Your task to perform on an android device: Open Android settings Image 0: 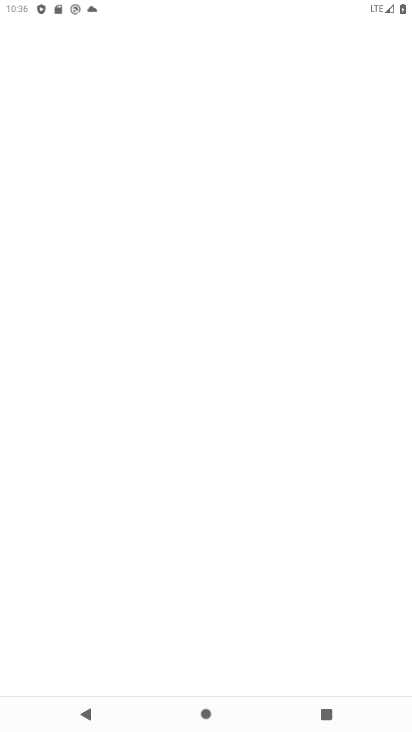
Step 0: drag from (194, 518) to (155, 257)
Your task to perform on an android device: Open Android settings Image 1: 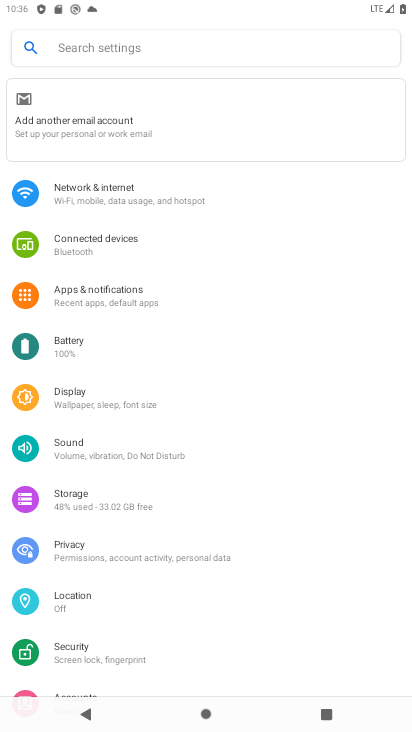
Step 1: press home button
Your task to perform on an android device: Open Android settings Image 2: 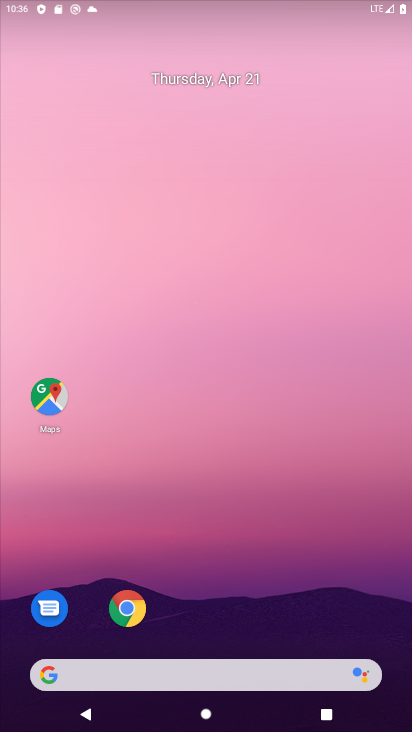
Step 2: drag from (216, 606) to (213, 144)
Your task to perform on an android device: Open Android settings Image 3: 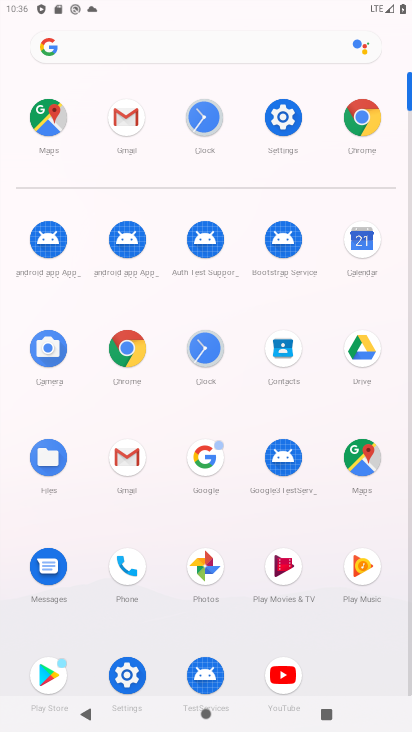
Step 3: click (285, 120)
Your task to perform on an android device: Open Android settings Image 4: 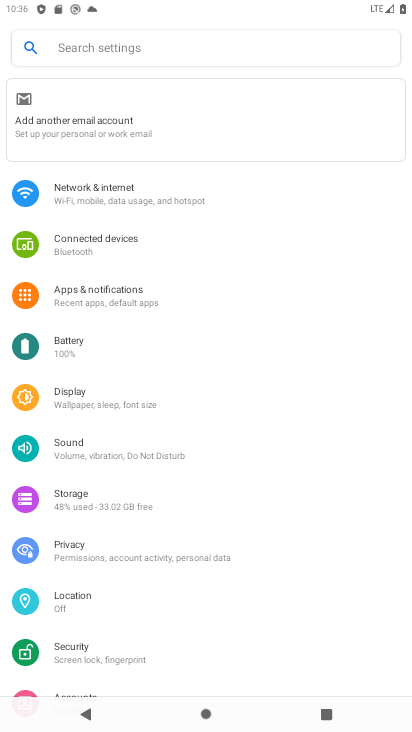
Step 4: drag from (279, 684) to (266, 281)
Your task to perform on an android device: Open Android settings Image 5: 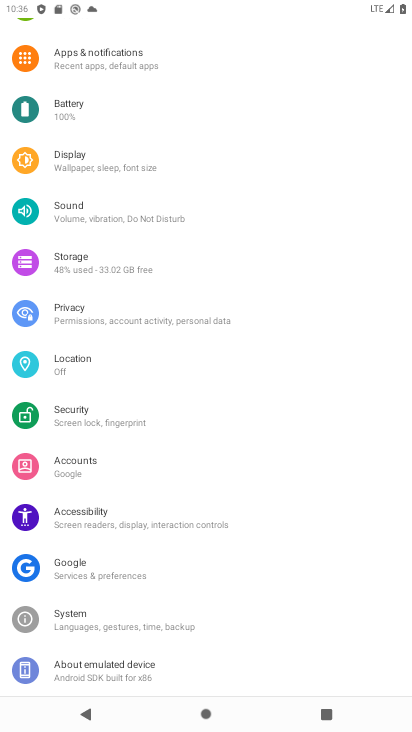
Step 5: click (121, 664)
Your task to perform on an android device: Open Android settings Image 6: 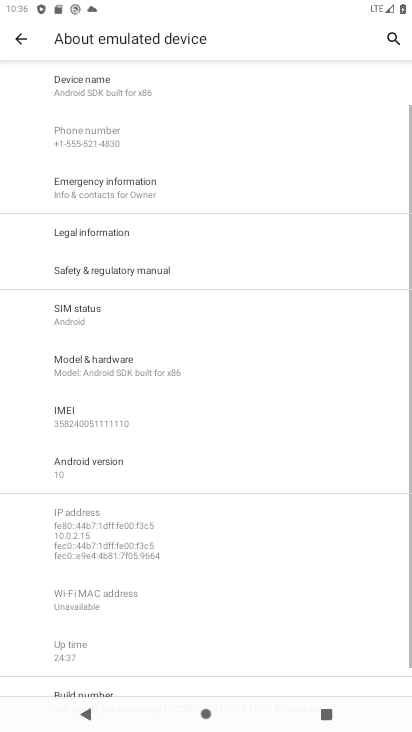
Step 6: drag from (105, 593) to (108, 255)
Your task to perform on an android device: Open Android settings Image 7: 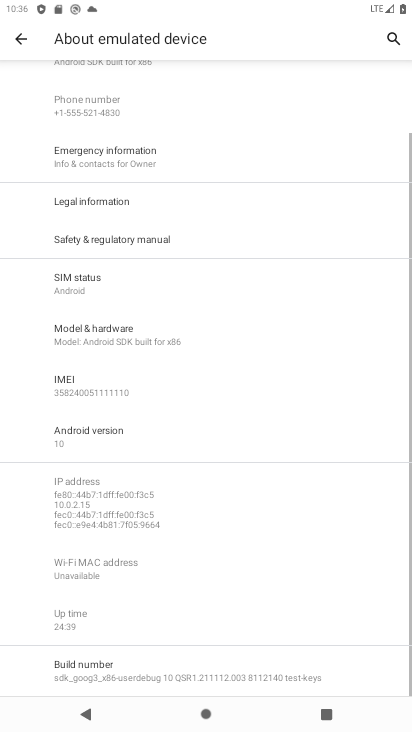
Step 7: click (78, 433)
Your task to perform on an android device: Open Android settings Image 8: 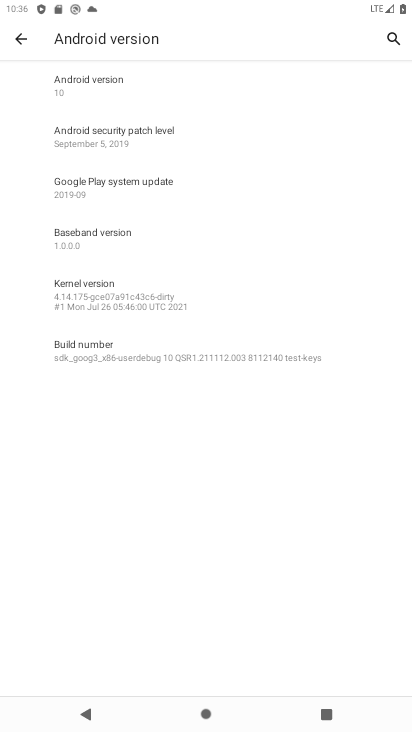
Step 8: task complete